Your task to perform on an android device: Go to internet settings Image 0: 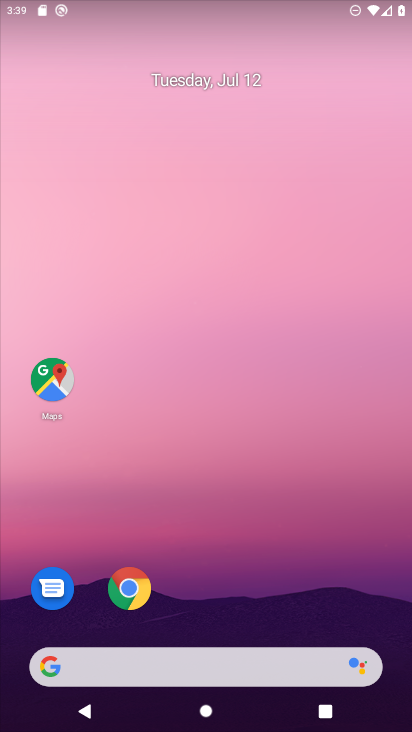
Step 0: drag from (249, 619) to (208, 84)
Your task to perform on an android device: Go to internet settings Image 1: 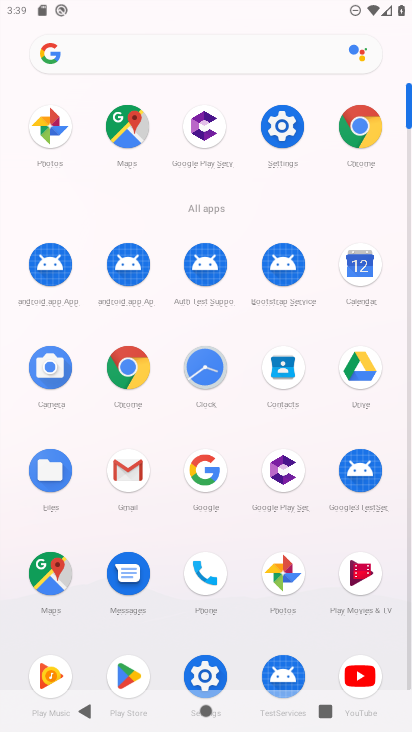
Step 1: click (284, 120)
Your task to perform on an android device: Go to internet settings Image 2: 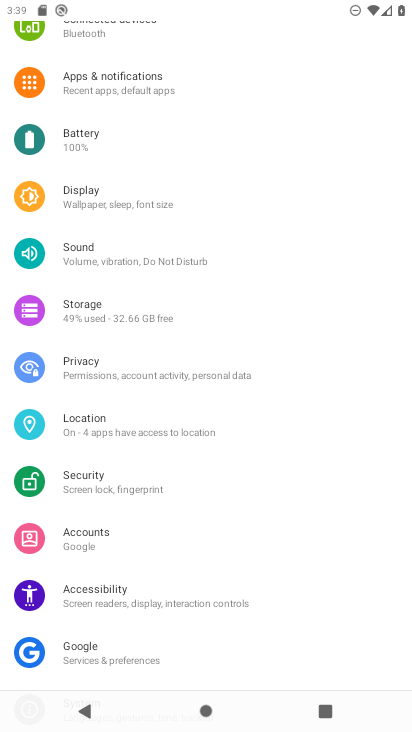
Step 2: drag from (210, 58) to (159, 448)
Your task to perform on an android device: Go to internet settings Image 3: 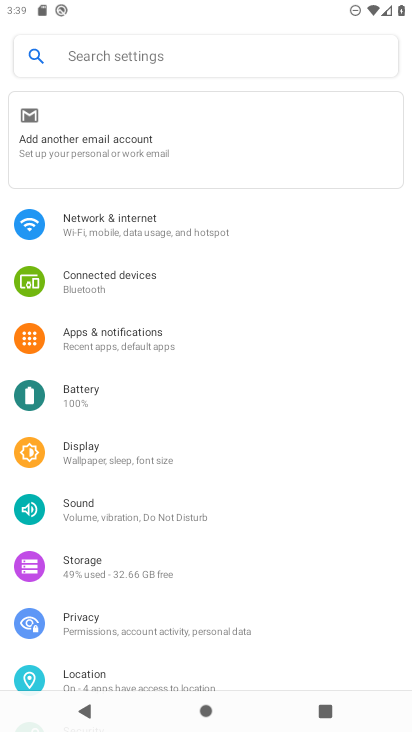
Step 3: click (131, 225)
Your task to perform on an android device: Go to internet settings Image 4: 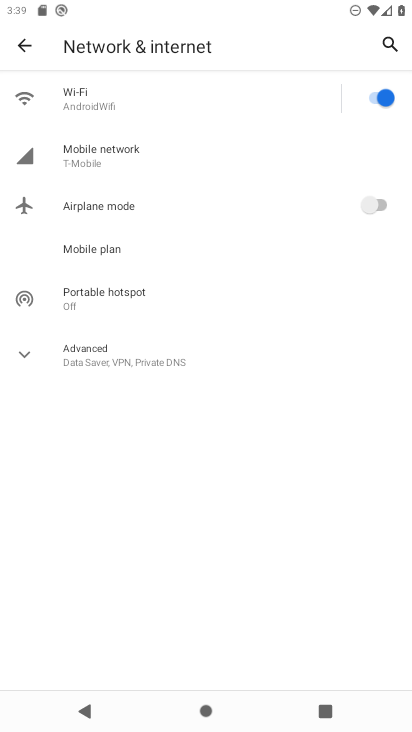
Step 4: task complete